Your task to perform on an android device: View the shopping cart on newegg. Image 0: 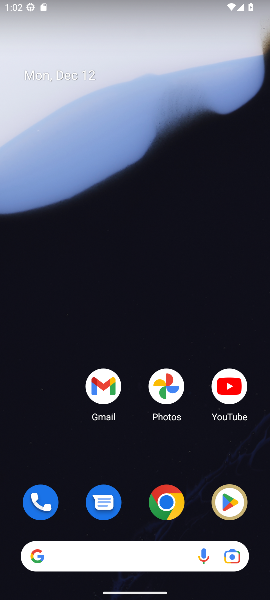
Step 0: press home button
Your task to perform on an android device: View the shopping cart on newegg. Image 1: 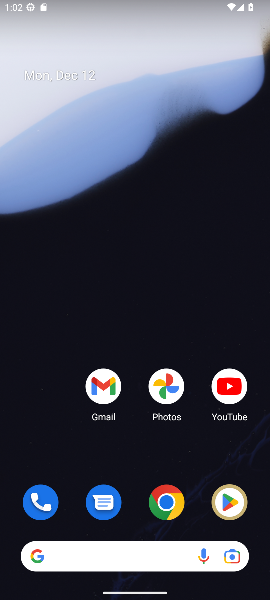
Step 1: click (176, 502)
Your task to perform on an android device: View the shopping cart on newegg. Image 2: 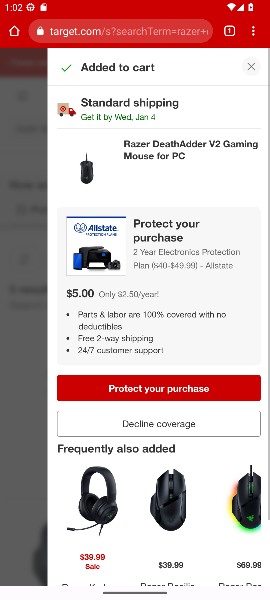
Step 2: click (152, 34)
Your task to perform on an android device: View the shopping cart on newegg. Image 3: 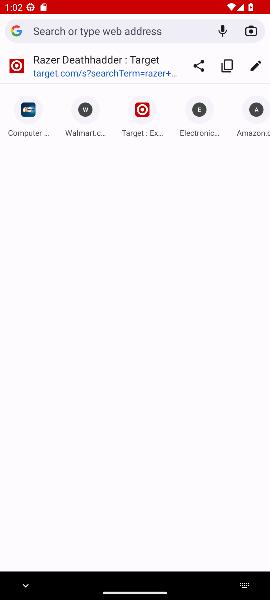
Step 3: type "newgg"
Your task to perform on an android device: View the shopping cart on newegg. Image 4: 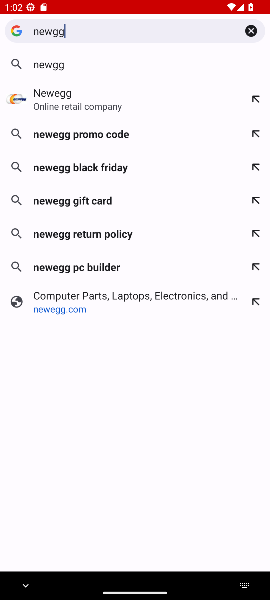
Step 4: click (70, 93)
Your task to perform on an android device: View the shopping cart on newegg. Image 5: 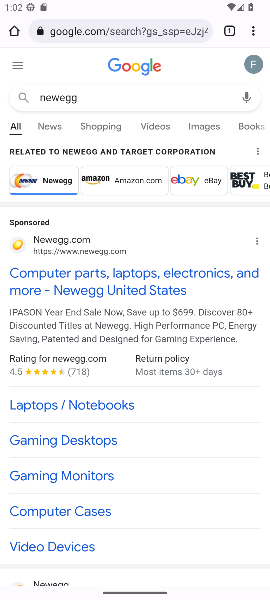
Step 5: click (102, 280)
Your task to perform on an android device: View the shopping cart on newegg. Image 6: 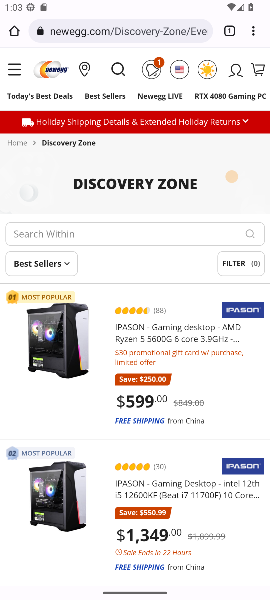
Step 6: click (255, 72)
Your task to perform on an android device: View the shopping cart on newegg. Image 7: 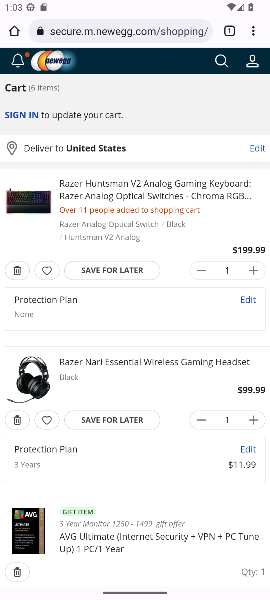
Step 7: click (10, 274)
Your task to perform on an android device: View the shopping cart on newegg. Image 8: 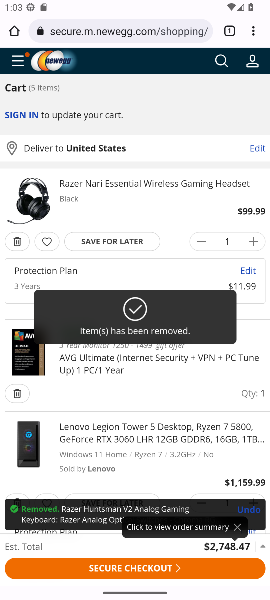
Step 8: click (10, 274)
Your task to perform on an android device: View the shopping cart on newegg. Image 9: 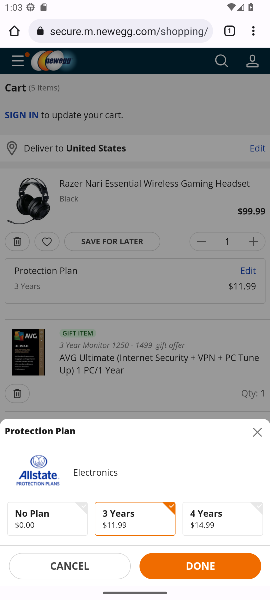
Step 9: click (13, 240)
Your task to perform on an android device: View the shopping cart on newegg. Image 10: 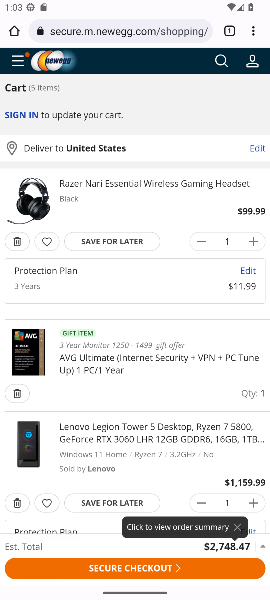
Step 10: click (13, 240)
Your task to perform on an android device: View the shopping cart on newegg. Image 11: 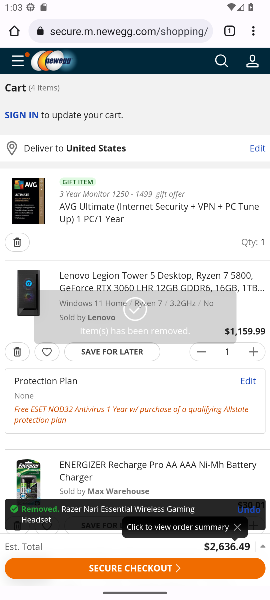
Step 11: click (18, 236)
Your task to perform on an android device: View the shopping cart on newegg. Image 12: 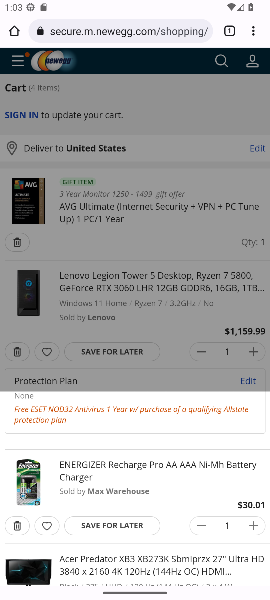
Step 12: click (16, 534)
Your task to perform on an android device: View the shopping cart on newegg. Image 13: 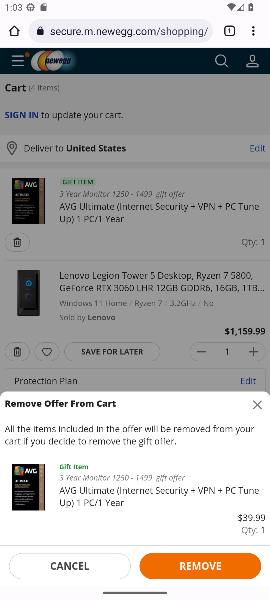
Step 13: click (199, 577)
Your task to perform on an android device: View the shopping cart on newegg. Image 14: 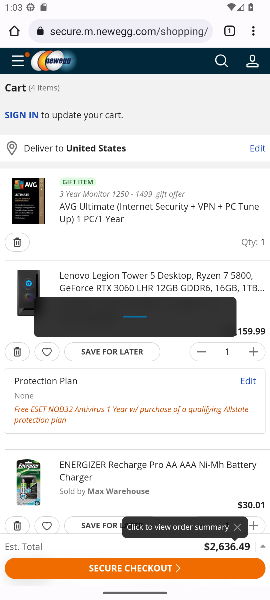
Step 14: click (18, 530)
Your task to perform on an android device: View the shopping cart on newegg. Image 15: 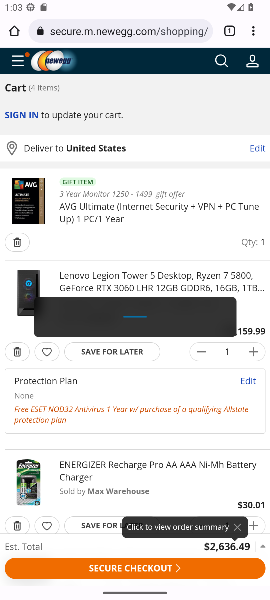
Step 15: click (18, 530)
Your task to perform on an android device: View the shopping cart on newegg. Image 16: 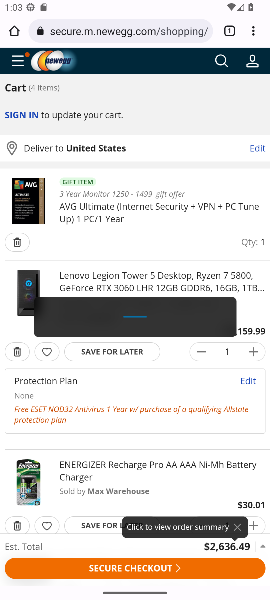
Step 16: click (21, 356)
Your task to perform on an android device: View the shopping cart on newegg. Image 17: 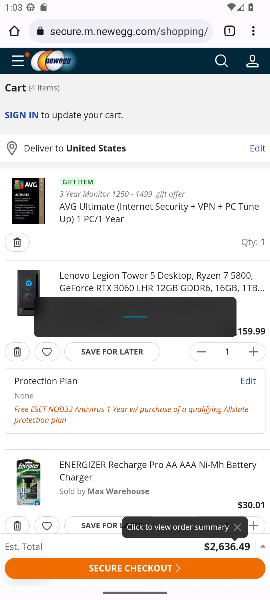
Step 17: task complete